Your task to perform on an android device: toggle data saver in the chrome app Image 0: 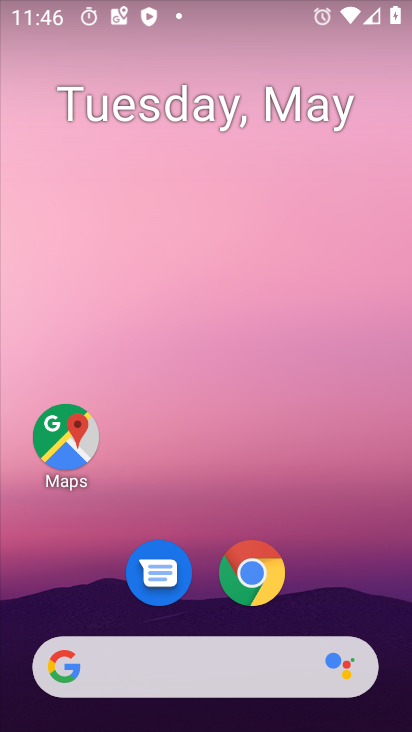
Step 0: drag from (233, 714) to (221, 367)
Your task to perform on an android device: toggle data saver in the chrome app Image 1: 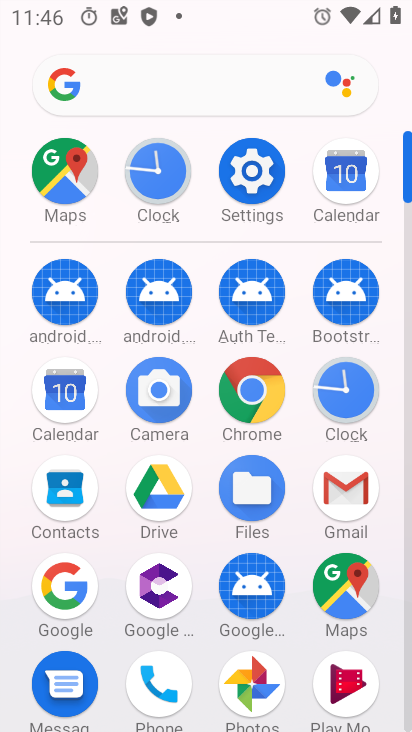
Step 1: click (249, 374)
Your task to perform on an android device: toggle data saver in the chrome app Image 2: 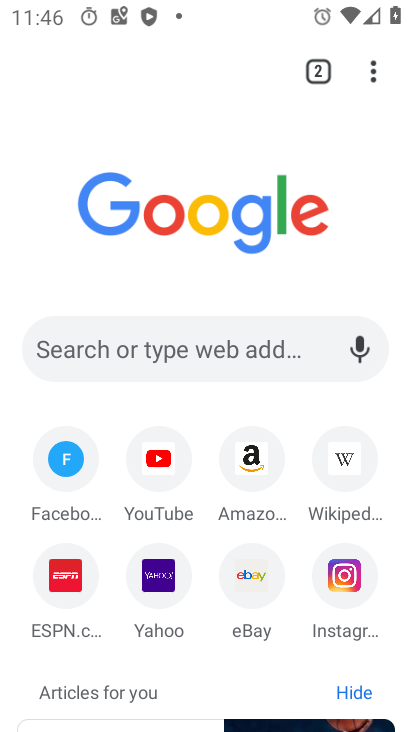
Step 2: click (377, 82)
Your task to perform on an android device: toggle data saver in the chrome app Image 3: 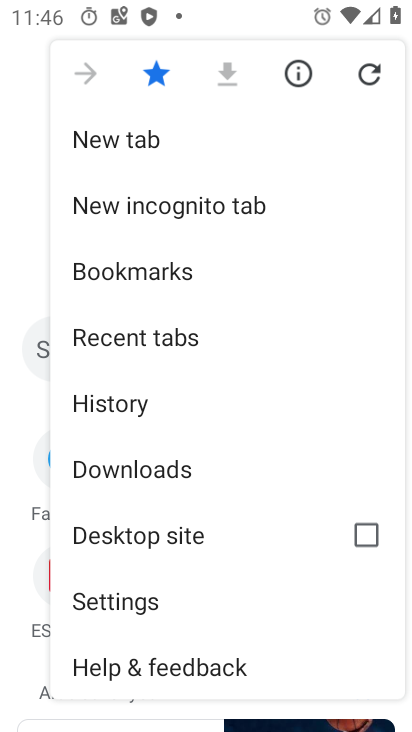
Step 3: click (138, 607)
Your task to perform on an android device: toggle data saver in the chrome app Image 4: 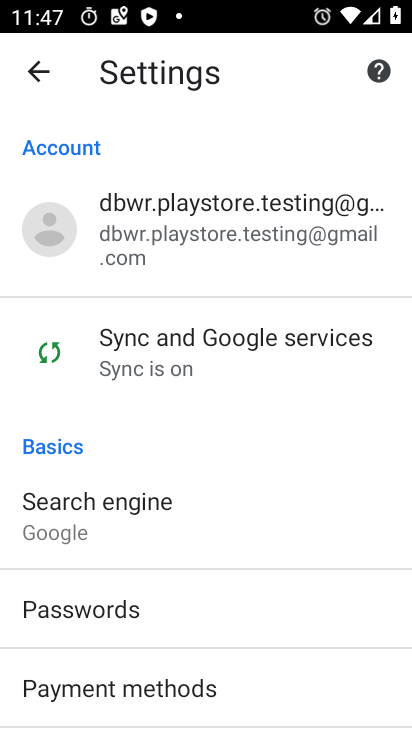
Step 4: drag from (201, 640) to (201, 225)
Your task to perform on an android device: toggle data saver in the chrome app Image 5: 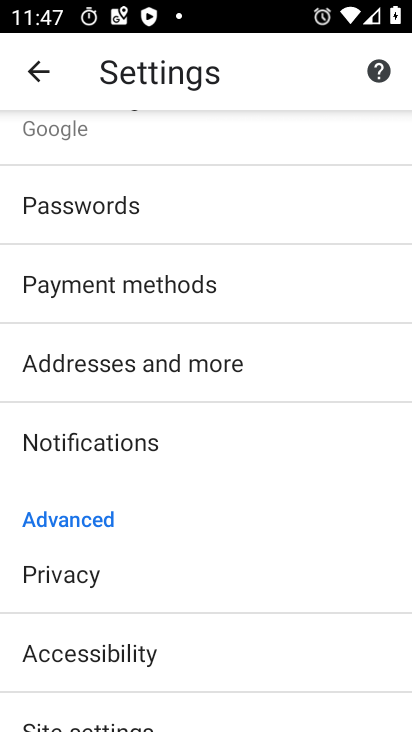
Step 5: drag from (116, 669) to (111, 440)
Your task to perform on an android device: toggle data saver in the chrome app Image 6: 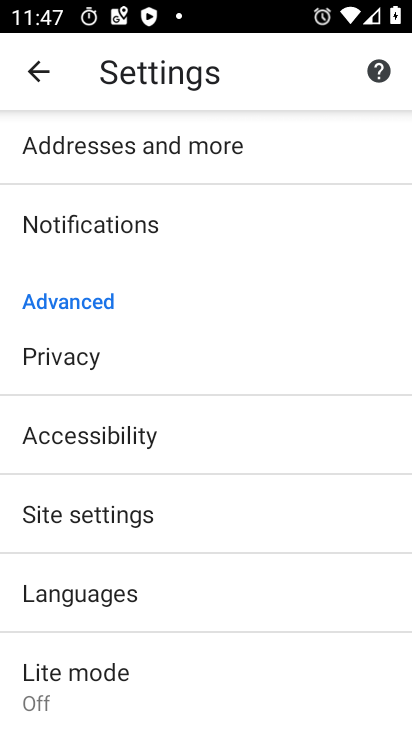
Step 6: click (93, 673)
Your task to perform on an android device: toggle data saver in the chrome app Image 7: 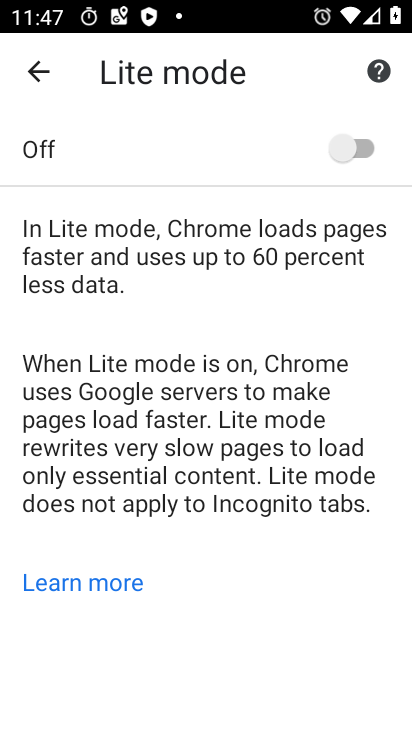
Step 7: task complete